Your task to perform on an android device: clear history in the chrome app Image 0: 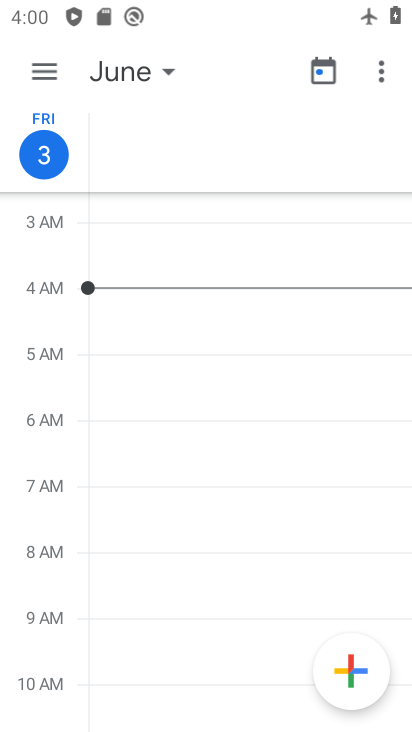
Step 0: press home button
Your task to perform on an android device: clear history in the chrome app Image 1: 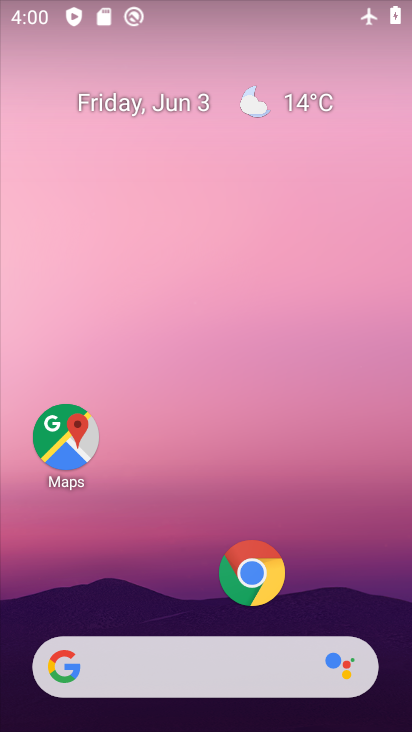
Step 1: drag from (193, 526) to (225, 187)
Your task to perform on an android device: clear history in the chrome app Image 2: 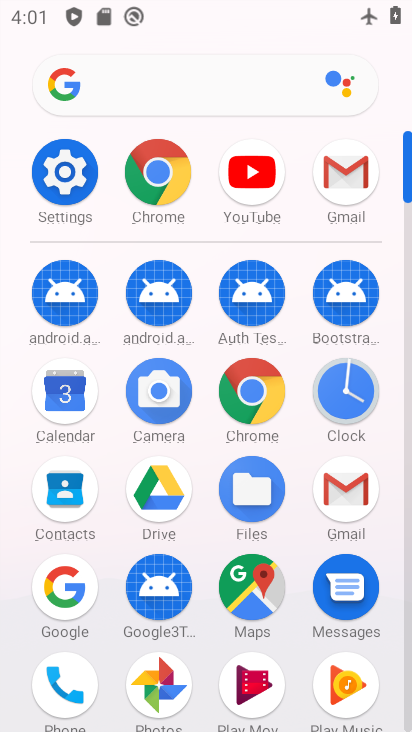
Step 2: click (142, 185)
Your task to perform on an android device: clear history in the chrome app Image 3: 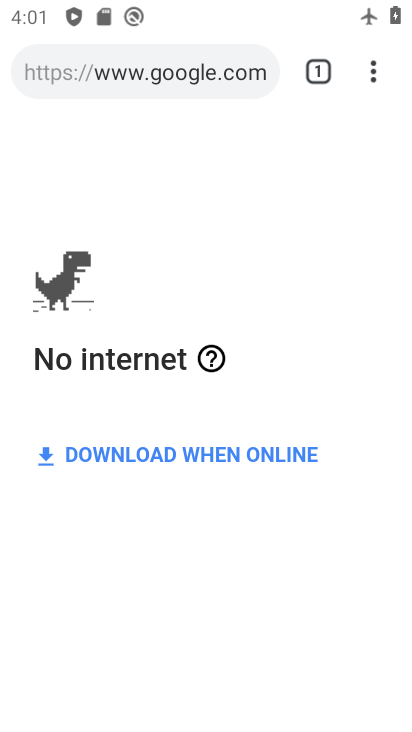
Step 3: click (372, 82)
Your task to perform on an android device: clear history in the chrome app Image 4: 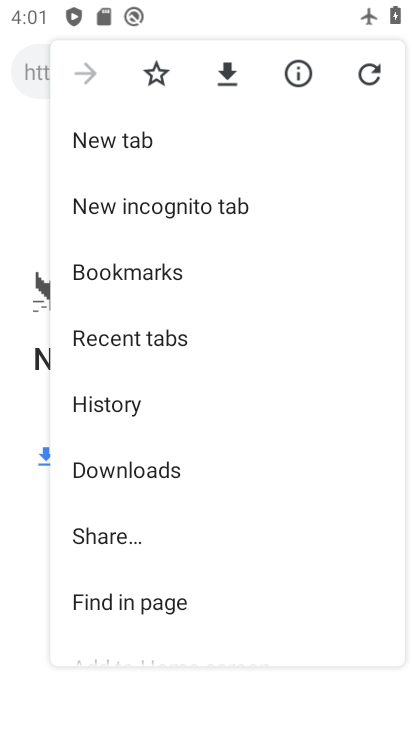
Step 4: click (105, 412)
Your task to perform on an android device: clear history in the chrome app Image 5: 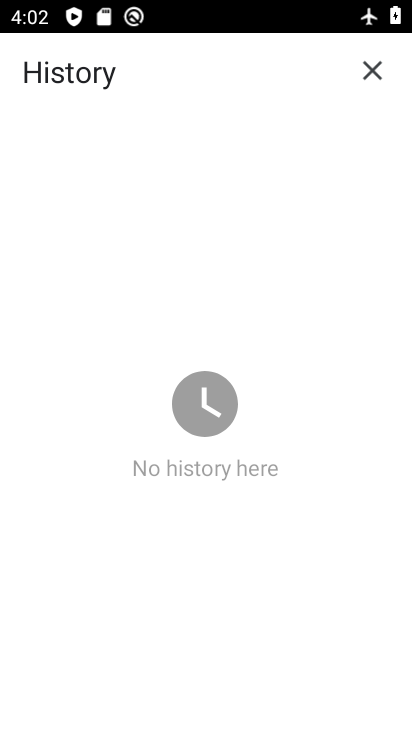
Step 5: task complete